Your task to perform on an android device: Go to Reddit.com Image 0: 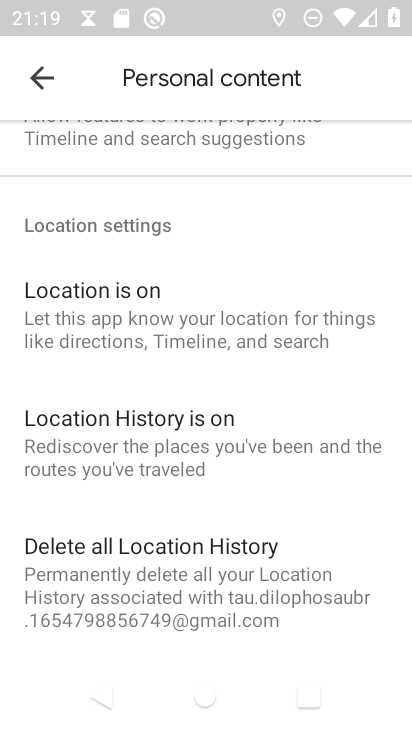
Step 0: press home button
Your task to perform on an android device: Go to Reddit.com Image 1: 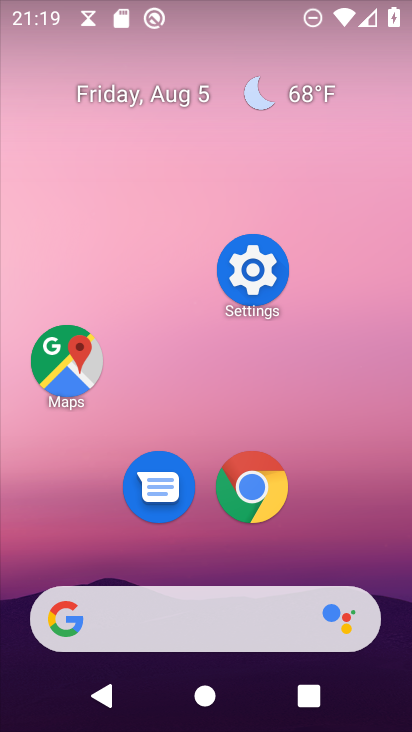
Step 1: click (251, 484)
Your task to perform on an android device: Go to Reddit.com Image 2: 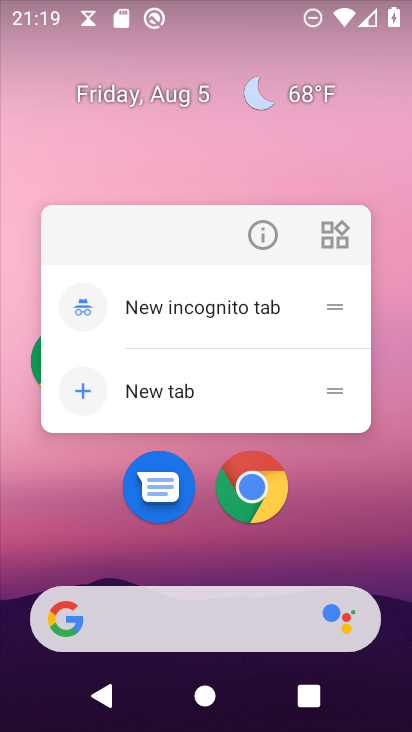
Step 2: click (250, 486)
Your task to perform on an android device: Go to Reddit.com Image 3: 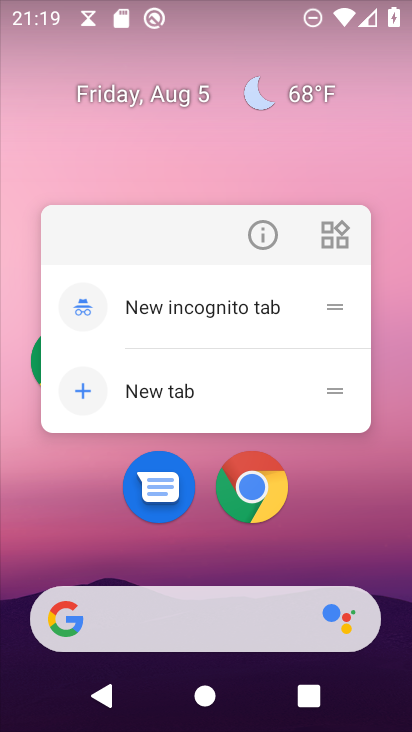
Step 3: click (250, 482)
Your task to perform on an android device: Go to Reddit.com Image 4: 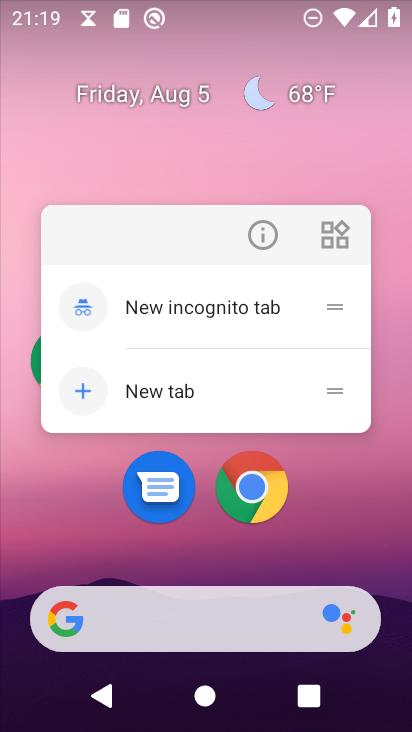
Step 4: click (254, 485)
Your task to perform on an android device: Go to Reddit.com Image 5: 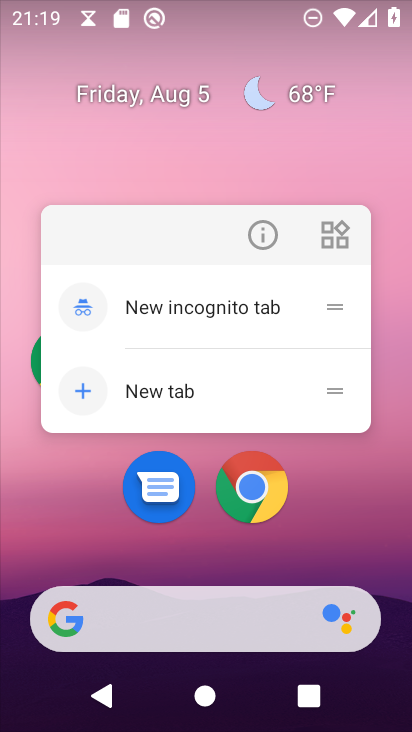
Step 5: click (268, 492)
Your task to perform on an android device: Go to Reddit.com Image 6: 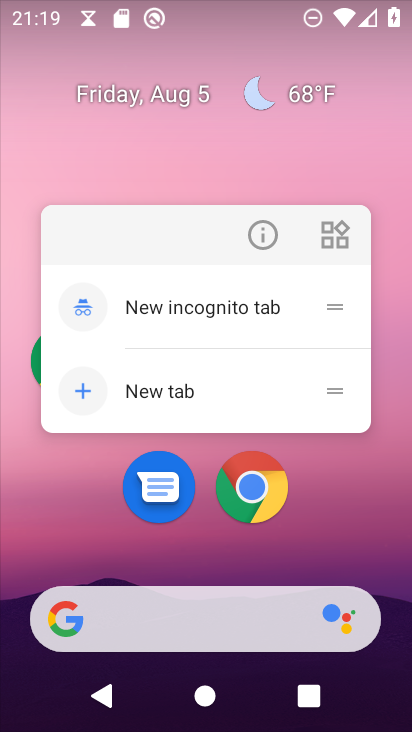
Step 6: click (254, 498)
Your task to perform on an android device: Go to Reddit.com Image 7: 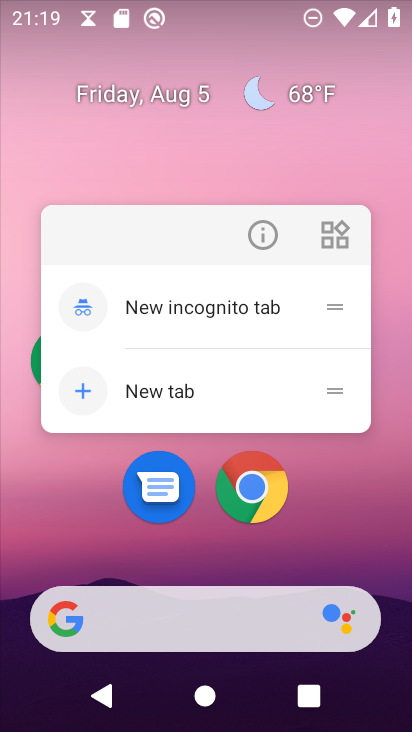
Step 7: click (254, 480)
Your task to perform on an android device: Go to Reddit.com Image 8: 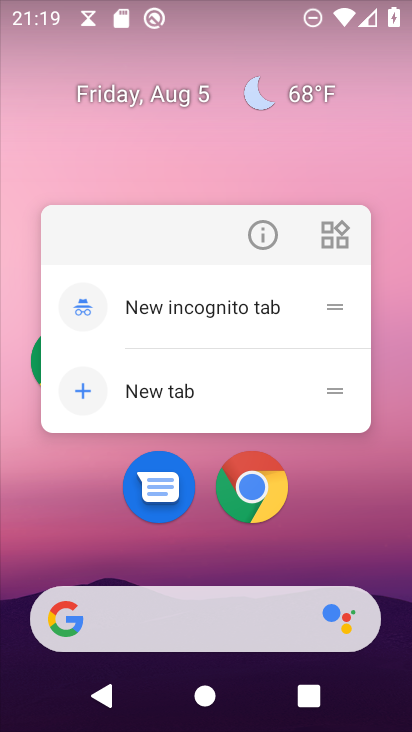
Step 8: click (255, 486)
Your task to perform on an android device: Go to Reddit.com Image 9: 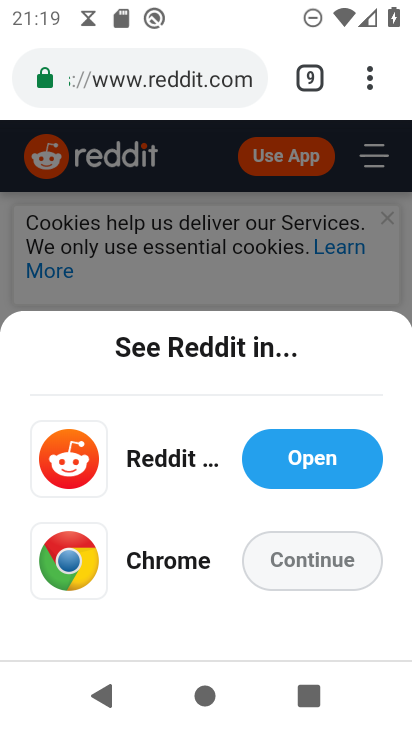
Step 9: task complete